Your task to perform on an android device: Show me productivity apps on the Play Store Image 0: 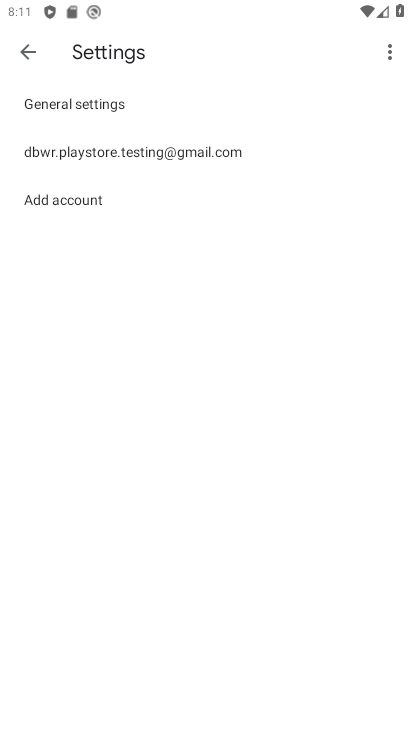
Step 0: press home button
Your task to perform on an android device: Show me productivity apps on the Play Store Image 1: 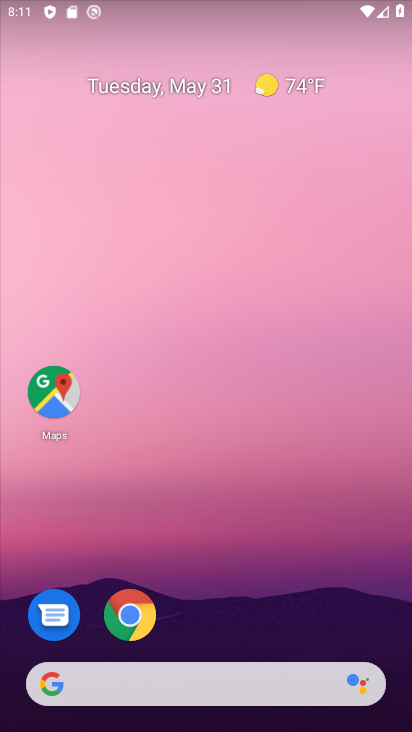
Step 1: drag from (199, 631) to (189, 188)
Your task to perform on an android device: Show me productivity apps on the Play Store Image 2: 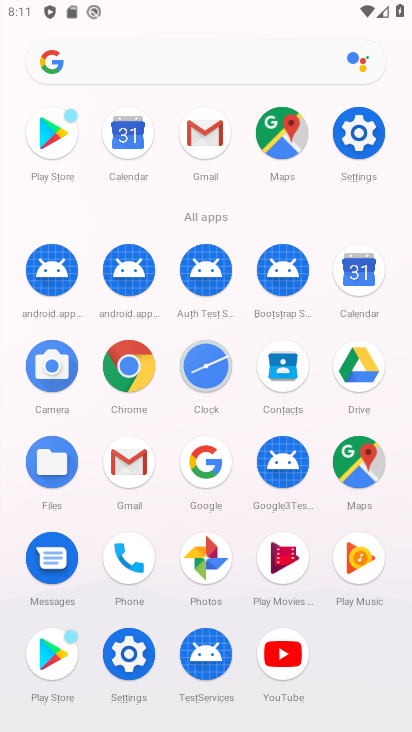
Step 2: click (44, 671)
Your task to perform on an android device: Show me productivity apps on the Play Store Image 3: 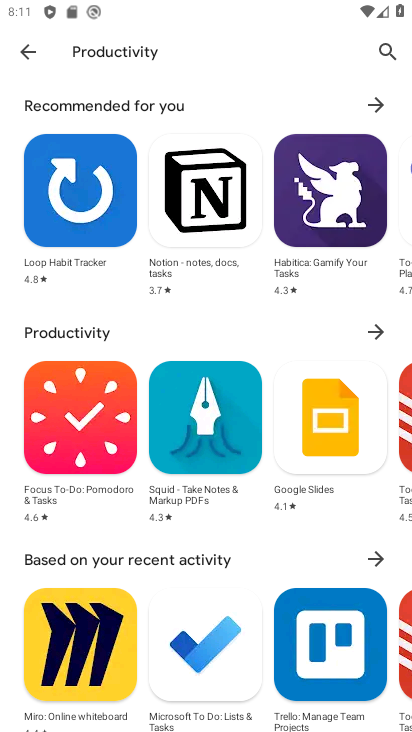
Step 3: task complete